Your task to perform on an android device: Search for Italian restaurants on Maps Image 0: 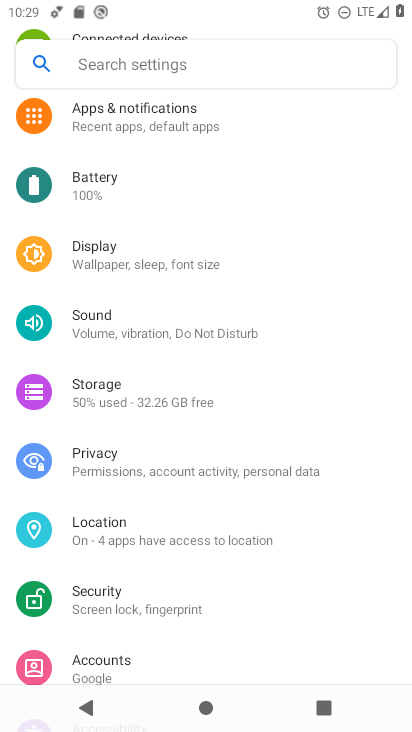
Step 0: press home button
Your task to perform on an android device: Search for Italian restaurants on Maps Image 1: 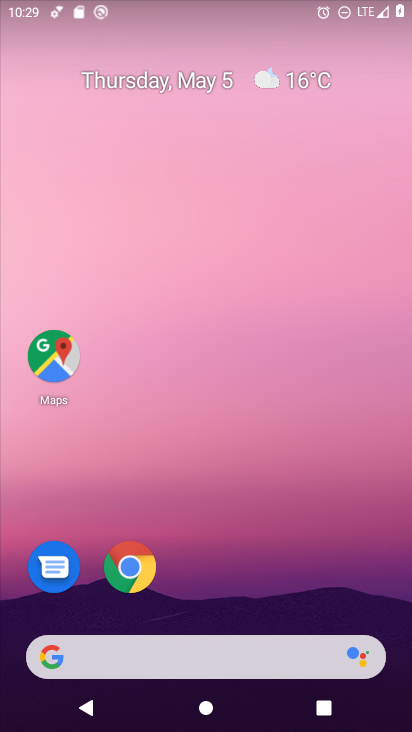
Step 1: drag from (270, 518) to (259, 53)
Your task to perform on an android device: Search for Italian restaurants on Maps Image 2: 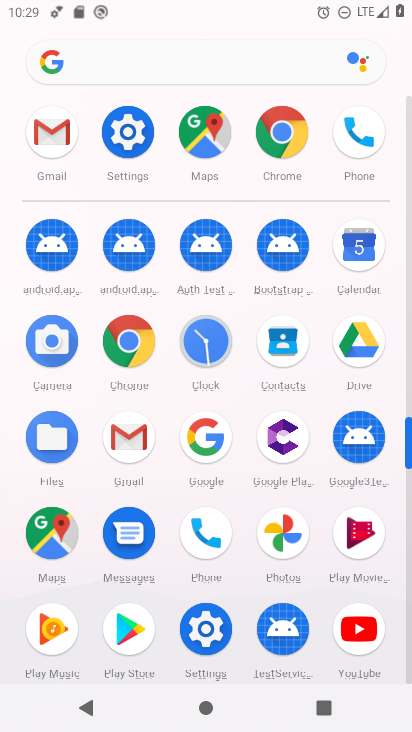
Step 2: click (202, 134)
Your task to perform on an android device: Search for Italian restaurants on Maps Image 3: 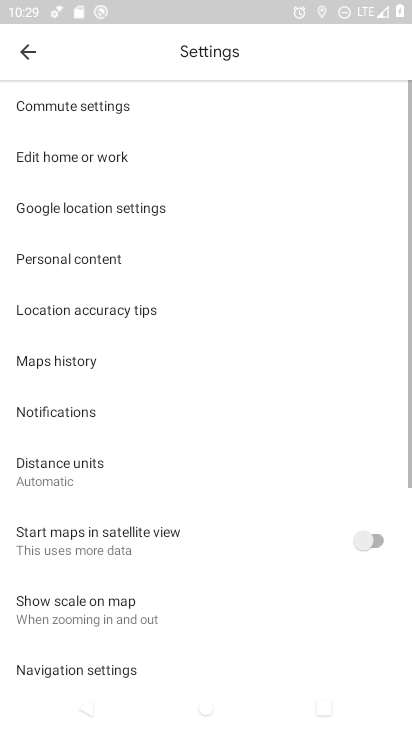
Step 3: click (28, 50)
Your task to perform on an android device: Search for Italian restaurants on Maps Image 4: 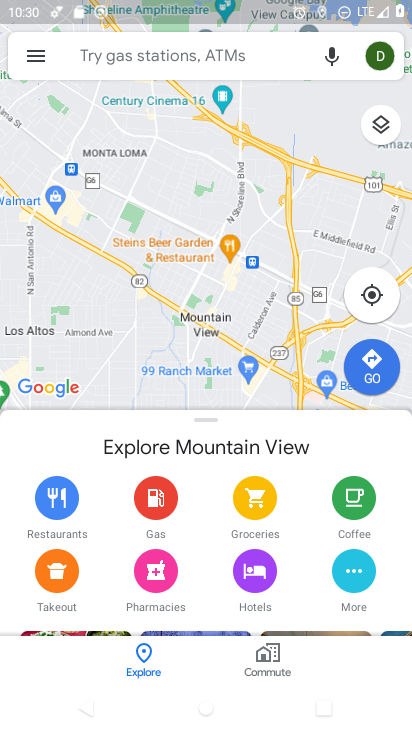
Step 4: click (144, 46)
Your task to perform on an android device: Search for Italian restaurants on Maps Image 5: 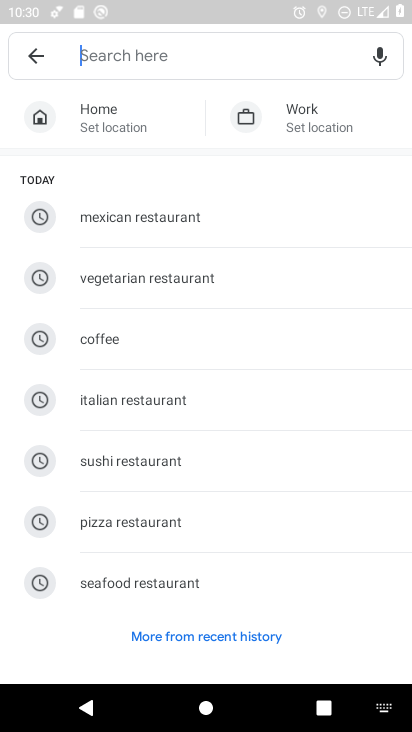
Step 5: click (162, 395)
Your task to perform on an android device: Search for Italian restaurants on Maps Image 6: 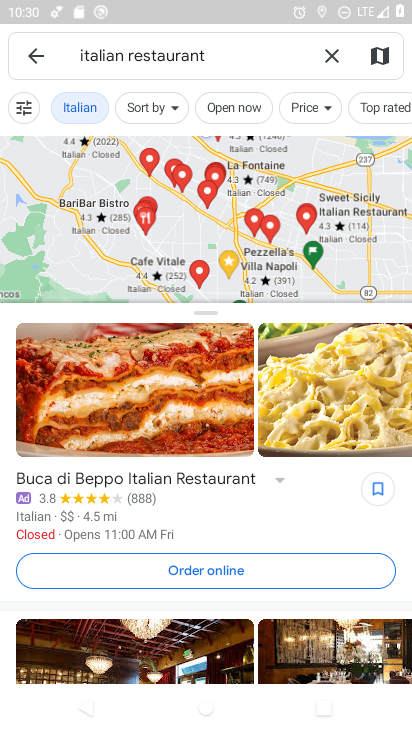
Step 6: task complete